Your task to perform on an android device: turn off translation in the chrome app Image 0: 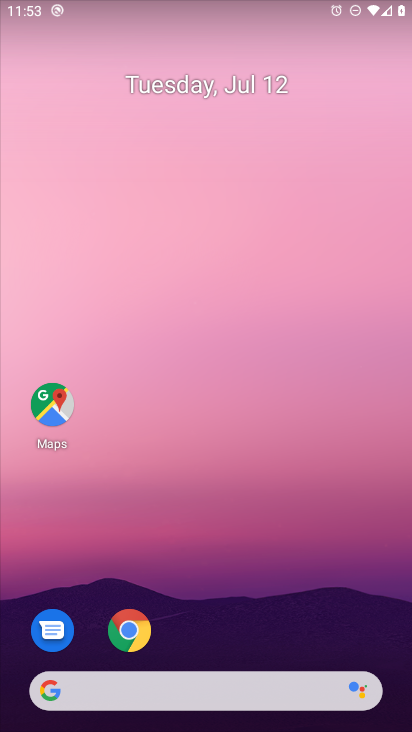
Step 0: press home button
Your task to perform on an android device: turn off translation in the chrome app Image 1: 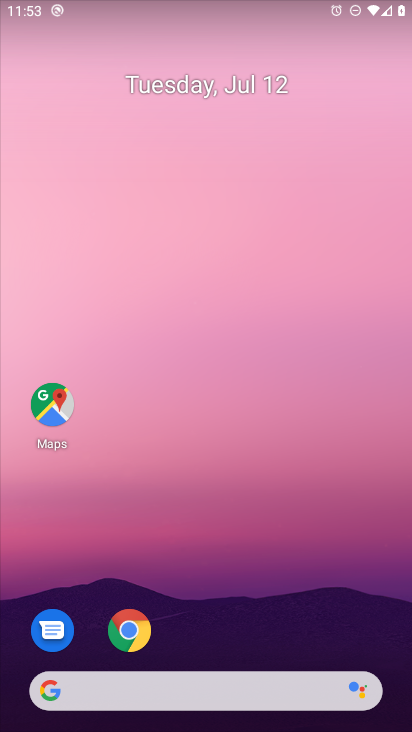
Step 1: drag from (251, 615) to (375, 235)
Your task to perform on an android device: turn off translation in the chrome app Image 2: 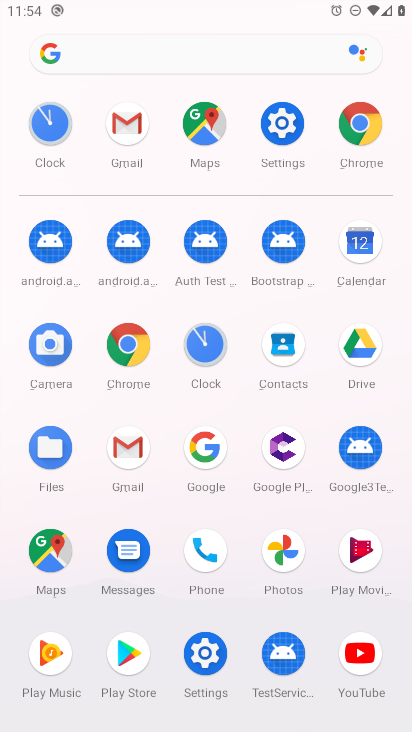
Step 2: click (371, 118)
Your task to perform on an android device: turn off translation in the chrome app Image 3: 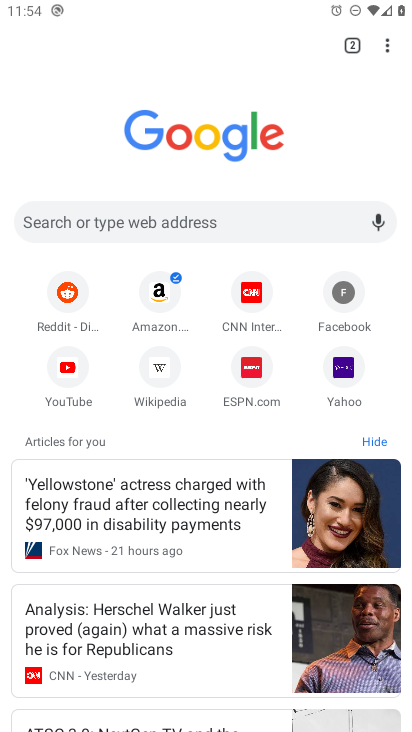
Step 3: drag from (384, 40) to (240, 381)
Your task to perform on an android device: turn off translation in the chrome app Image 4: 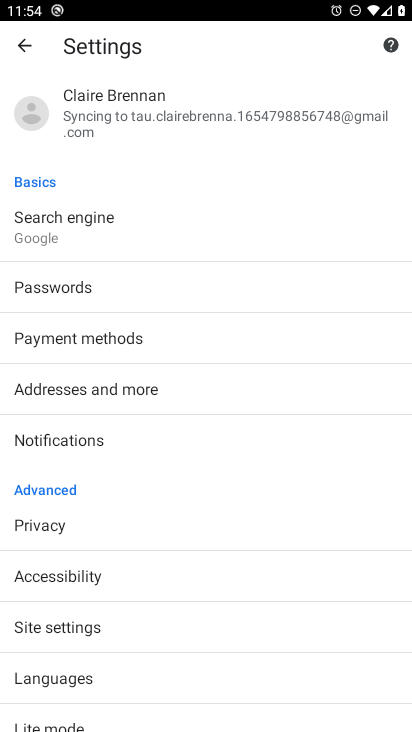
Step 4: drag from (196, 651) to (253, 341)
Your task to perform on an android device: turn off translation in the chrome app Image 5: 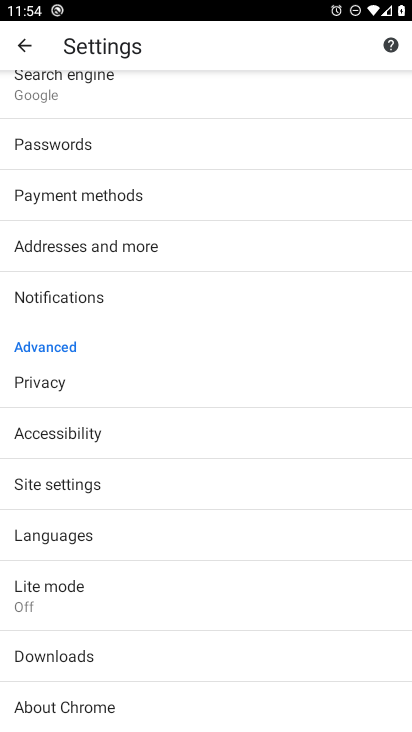
Step 5: click (225, 523)
Your task to perform on an android device: turn off translation in the chrome app Image 6: 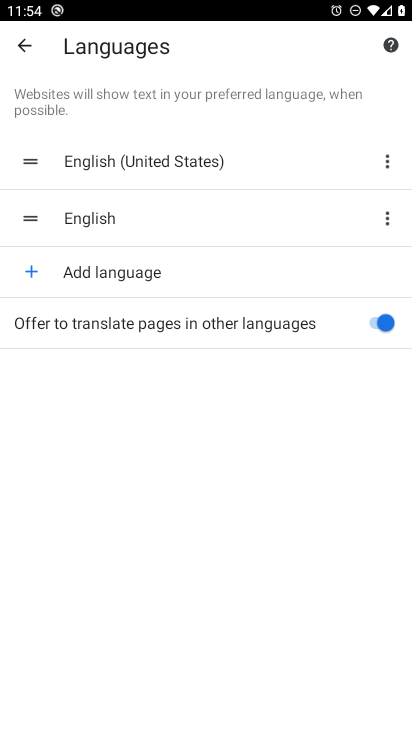
Step 6: click (383, 326)
Your task to perform on an android device: turn off translation in the chrome app Image 7: 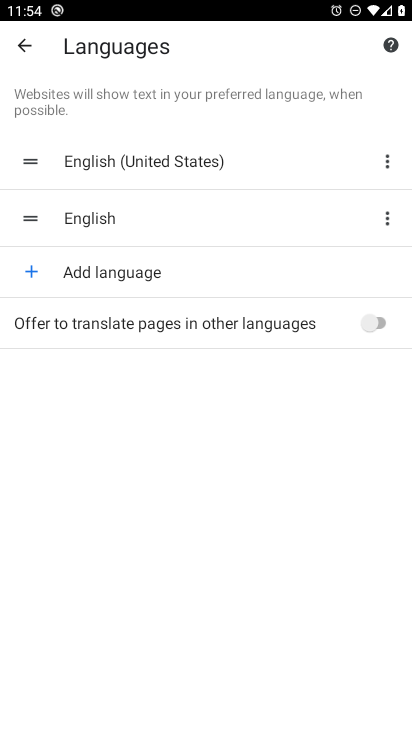
Step 7: task complete